Your task to perform on an android device: Go to network settings Image 0: 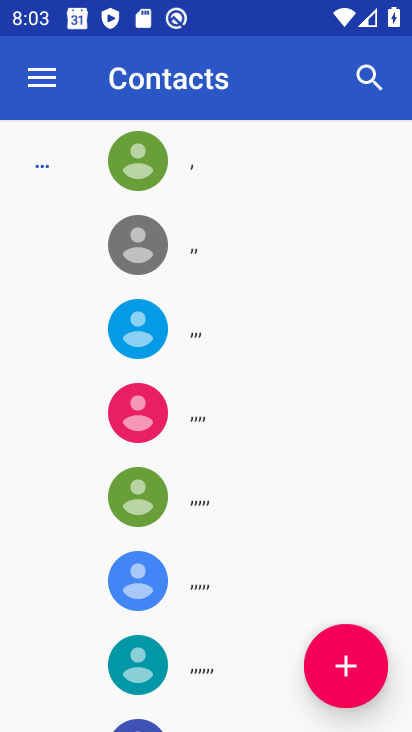
Step 0: press back button
Your task to perform on an android device: Go to network settings Image 1: 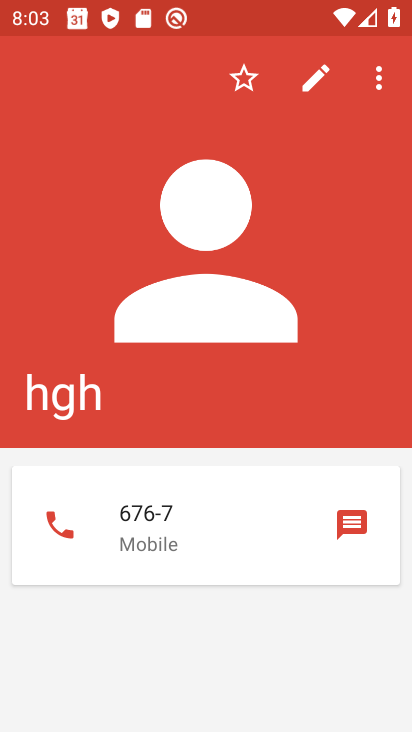
Step 1: press back button
Your task to perform on an android device: Go to network settings Image 2: 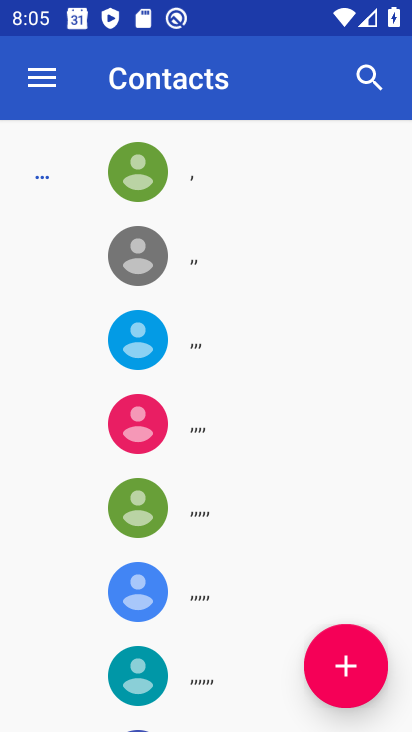
Step 2: press back button
Your task to perform on an android device: Go to network settings Image 3: 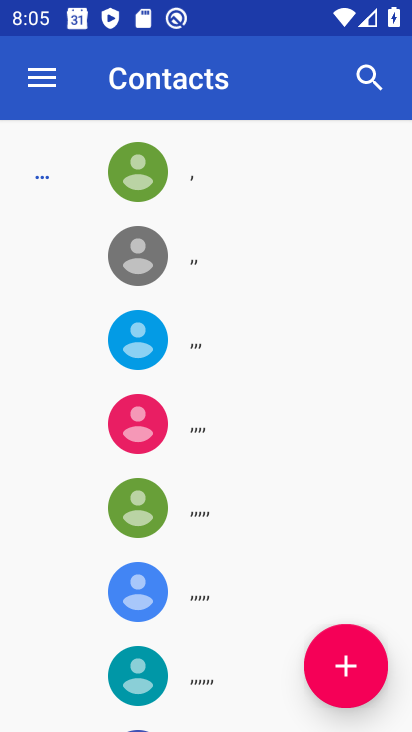
Step 3: press back button
Your task to perform on an android device: Go to network settings Image 4: 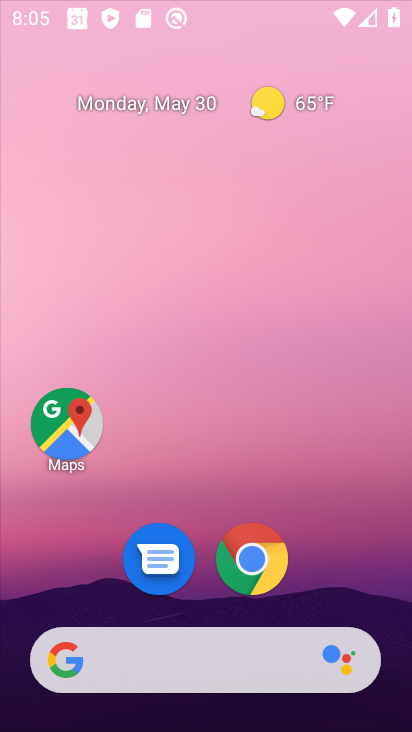
Step 4: press back button
Your task to perform on an android device: Go to network settings Image 5: 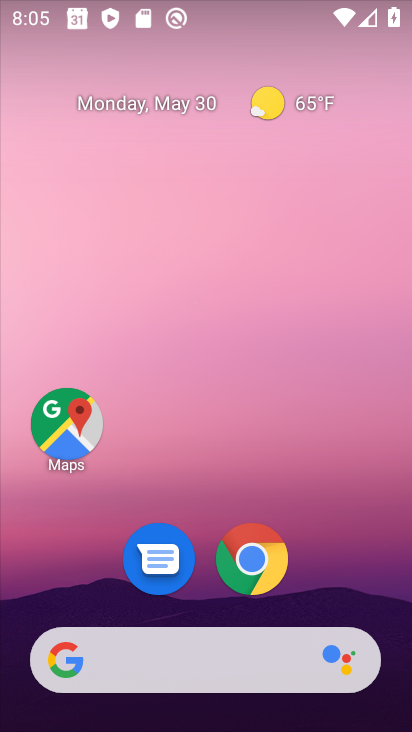
Step 5: drag from (224, 465) to (279, 15)
Your task to perform on an android device: Go to network settings Image 6: 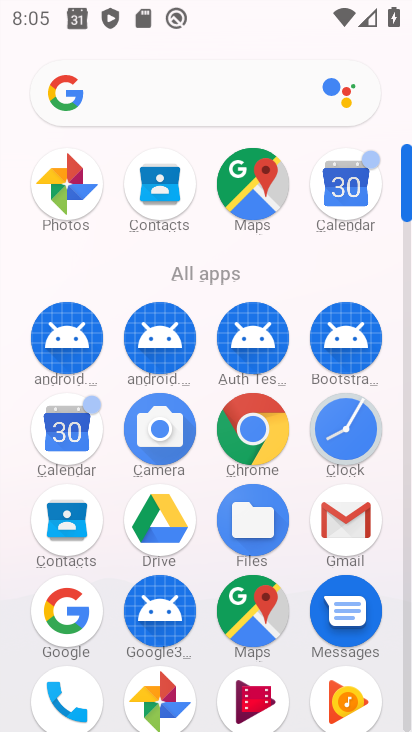
Step 6: drag from (214, 570) to (284, 79)
Your task to perform on an android device: Go to network settings Image 7: 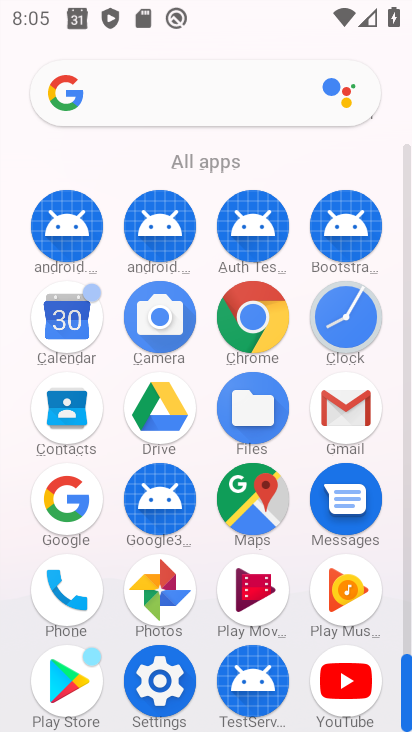
Step 7: click (156, 673)
Your task to perform on an android device: Go to network settings Image 8: 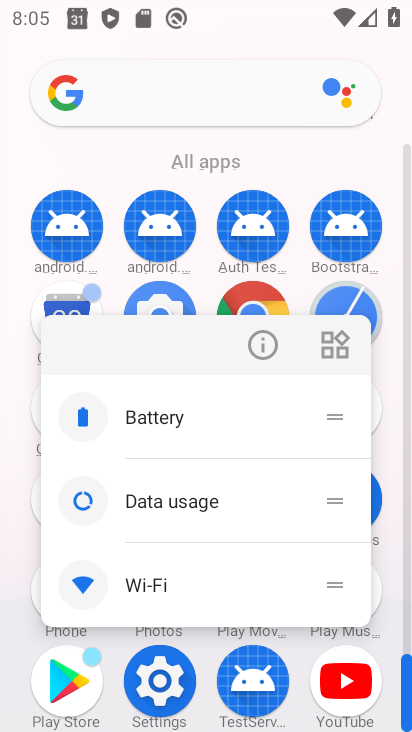
Step 8: click (172, 659)
Your task to perform on an android device: Go to network settings Image 9: 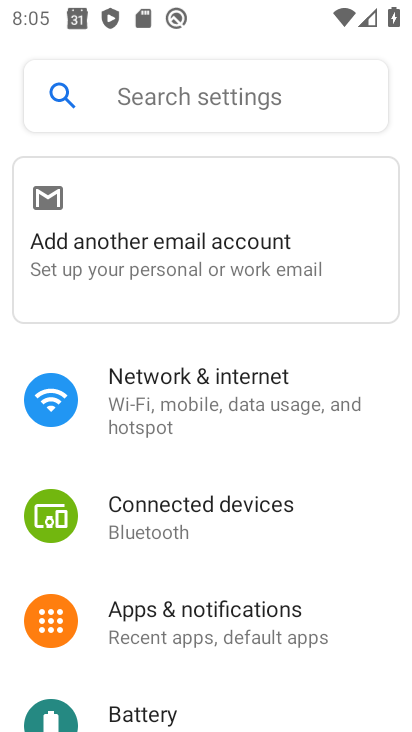
Step 9: click (162, 358)
Your task to perform on an android device: Go to network settings Image 10: 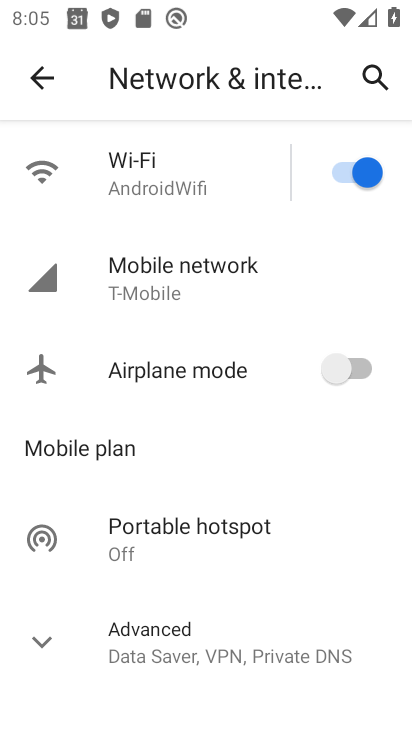
Step 10: task complete